Your task to perform on an android device: toggle notifications settings in the gmail app Image 0: 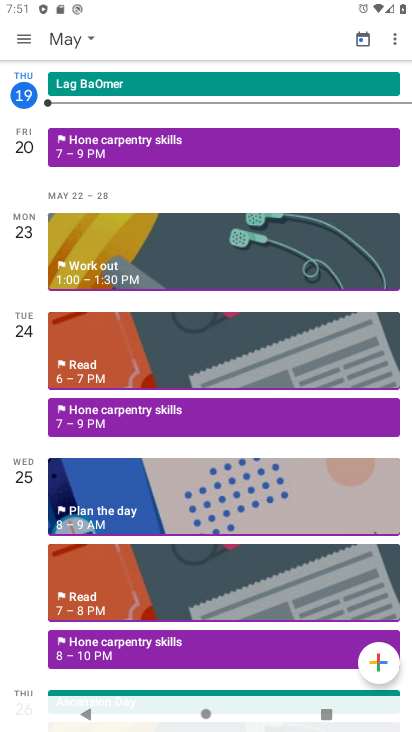
Step 0: press home button
Your task to perform on an android device: toggle notifications settings in the gmail app Image 1: 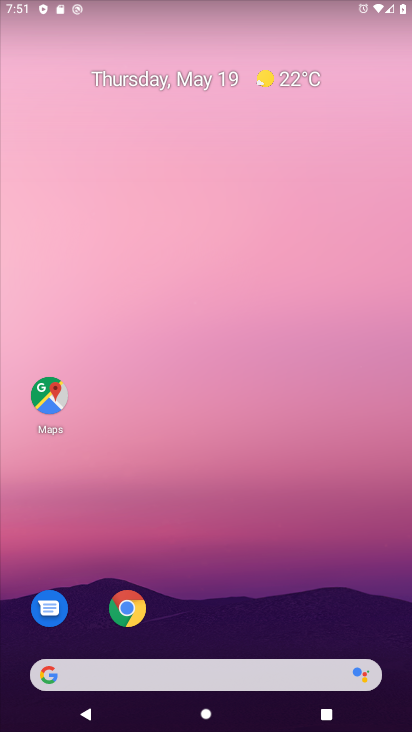
Step 1: drag from (252, 698) to (165, 78)
Your task to perform on an android device: toggle notifications settings in the gmail app Image 2: 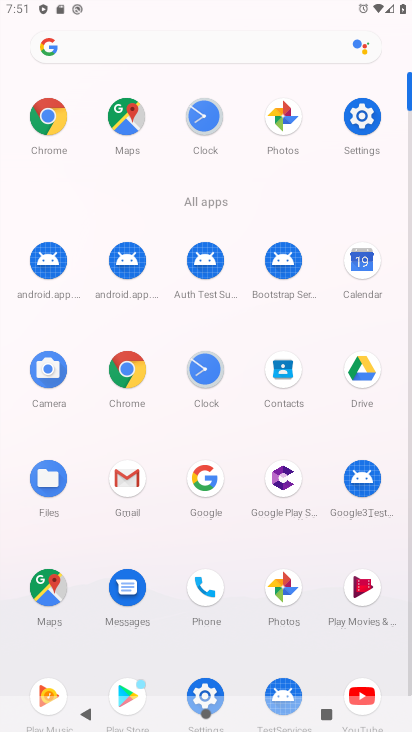
Step 2: click (123, 484)
Your task to perform on an android device: toggle notifications settings in the gmail app Image 3: 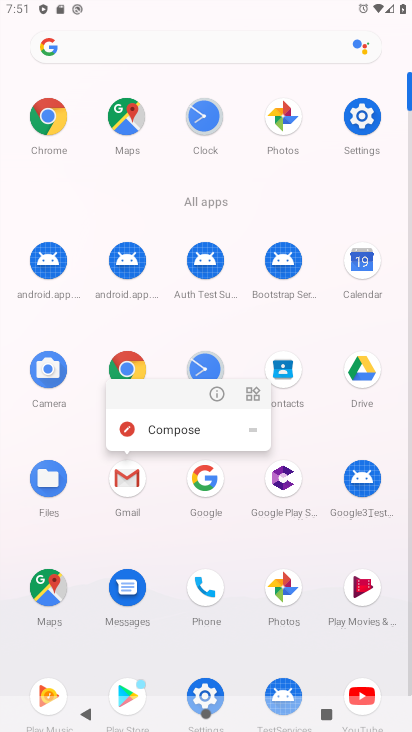
Step 3: click (224, 391)
Your task to perform on an android device: toggle notifications settings in the gmail app Image 4: 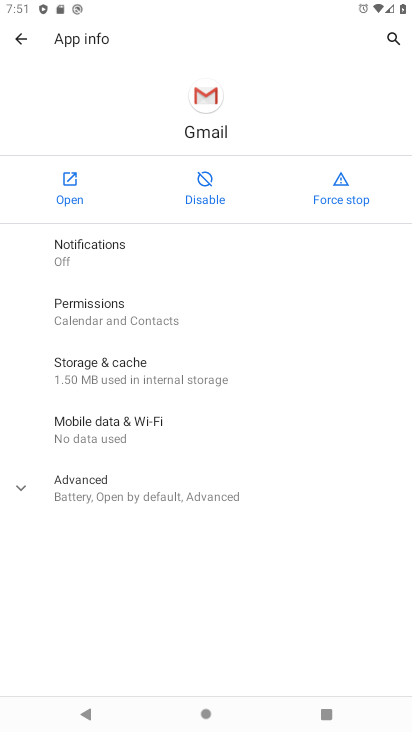
Step 4: click (98, 259)
Your task to perform on an android device: toggle notifications settings in the gmail app Image 5: 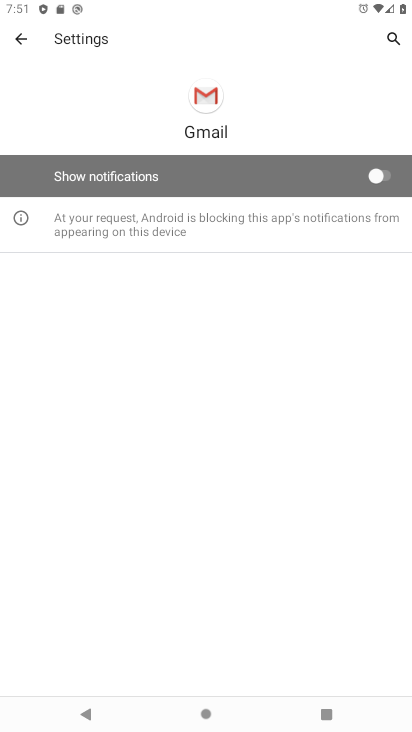
Step 5: click (379, 175)
Your task to perform on an android device: toggle notifications settings in the gmail app Image 6: 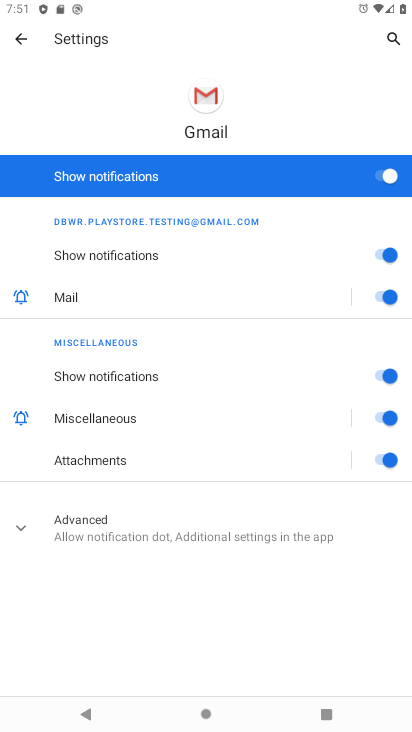
Step 6: task complete